Your task to perform on an android device: turn pop-ups off in chrome Image 0: 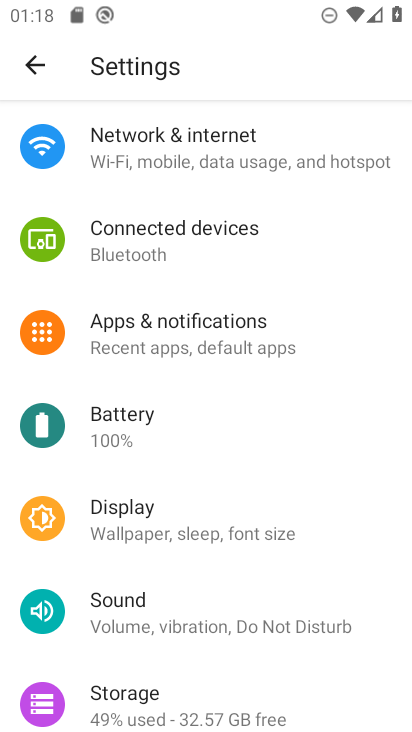
Step 0: press home button
Your task to perform on an android device: turn pop-ups off in chrome Image 1: 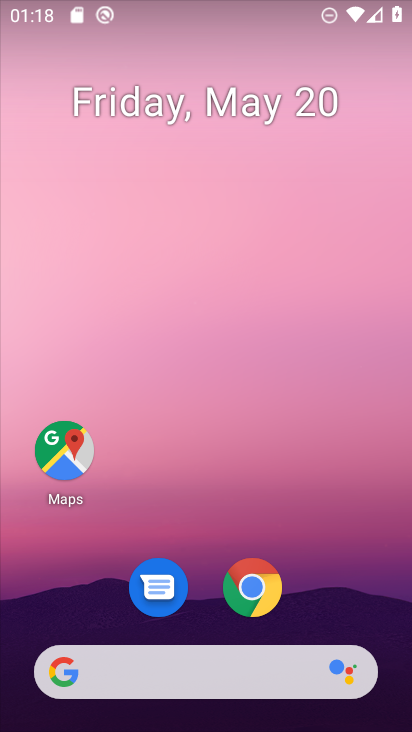
Step 1: drag from (379, 599) to (372, 203)
Your task to perform on an android device: turn pop-ups off in chrome Image 2: 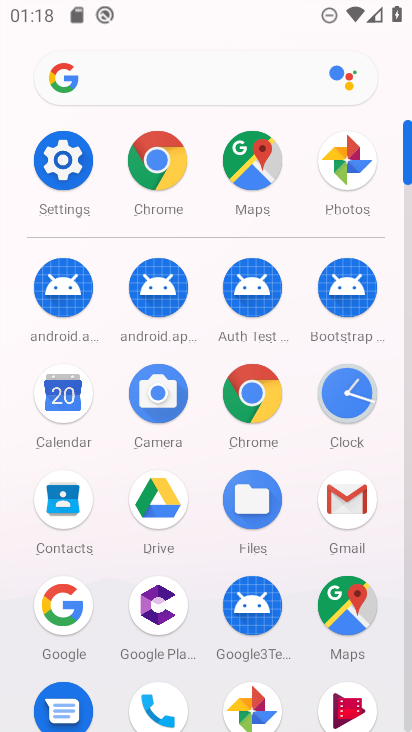
Step 2: click (262, 419)
Your task to perform on an android device: turn pop-ups off in chrome Image 3: 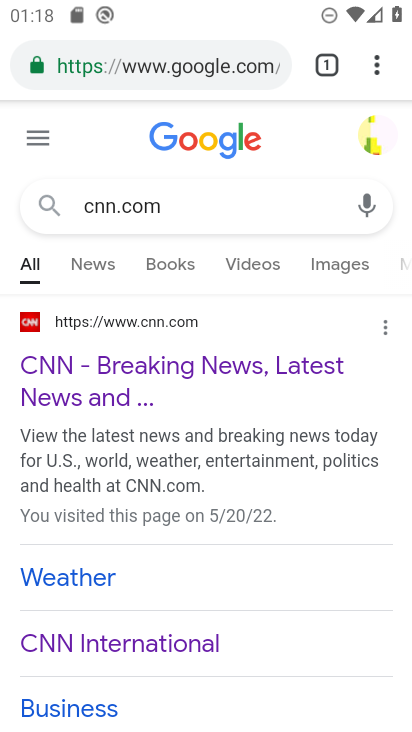
Step 3: click (376, 68)
Your task to perform on an android device: turn pop-ups off in chrome Image 4: 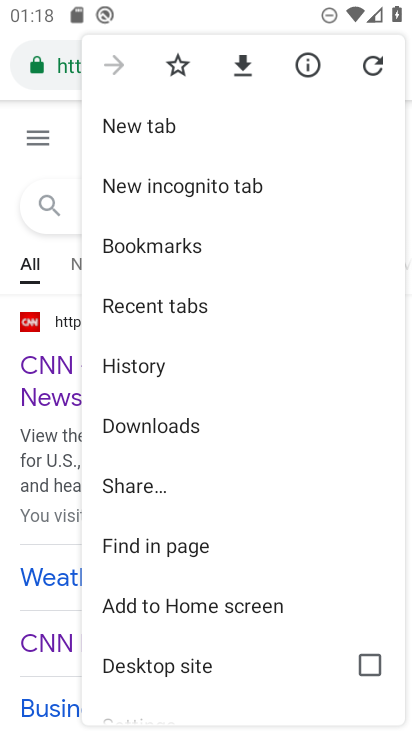
Step 4: drag from (319, 403) to (330, 270)
Your task to perform on an android device: turn pop-ups off in chrome Image 5: 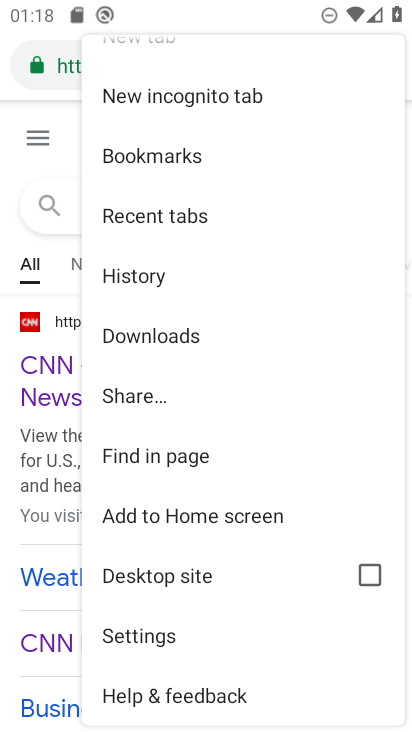
Step 5: drag from (306, 492) to (331, 316)
Your task to perform on an android device: turn pop-ups off in chrome Image 6: 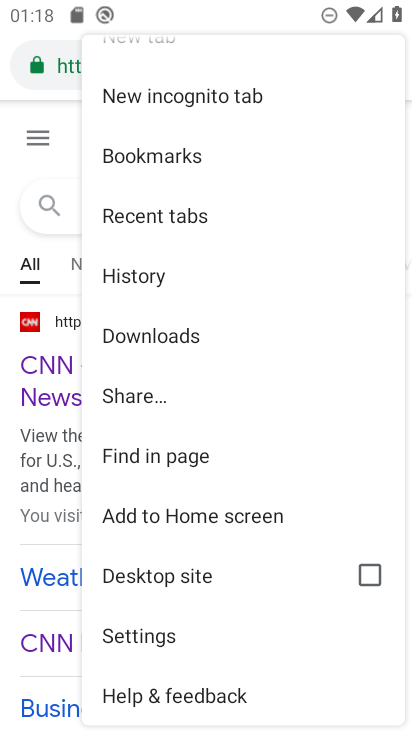
Step 6: click (172, 630)
Your task to perform on an android device: turn pop-ups off in chrome Image 7: 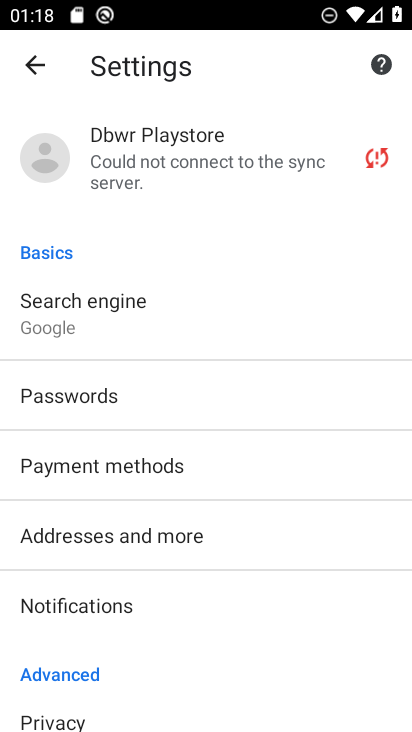
Step 7: drag from (297, 614) to (293, 475)
Your task to perform on an android device: turn pop-ups off in chrome Image 8: 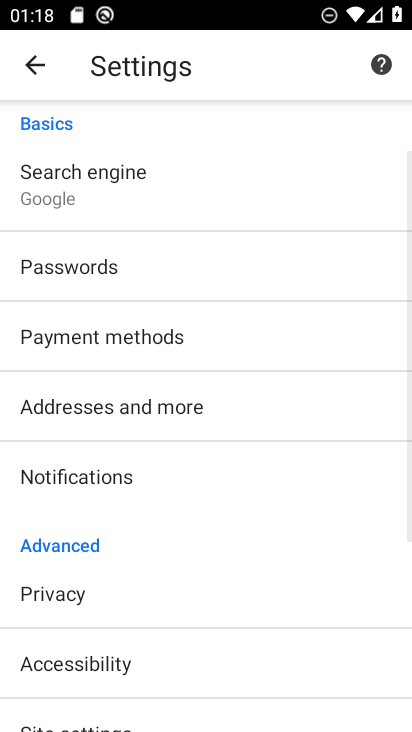
Step 8: drag from (299, 627) to (302, 509)
Your task to perform on an android device: turn pop-ups off in chrome Image 9: 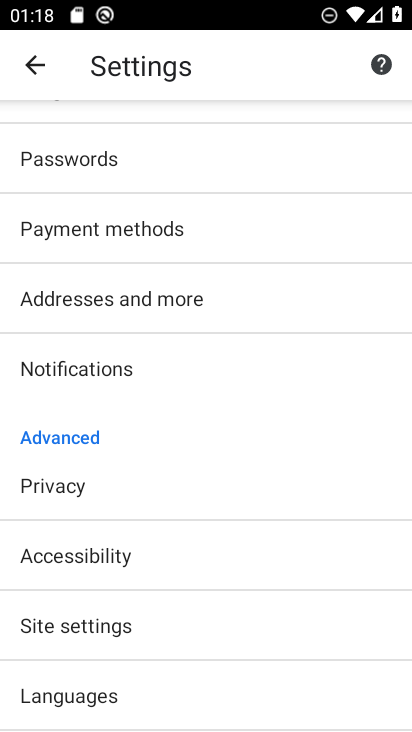
Step 9: drag from (271, 611) to (275, 499)
Your task to perform on an android device: turn pop-ups off in chrome Image 10: 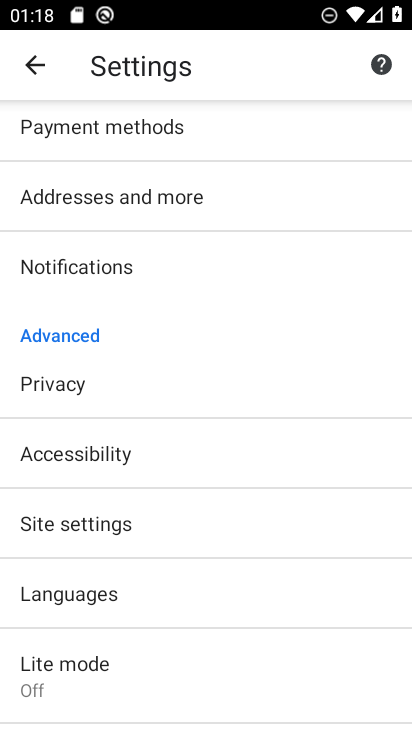
Step 10: drag from (282, 622) to (281, 503)
Your task to perform on an android device: turn pop-ups off in chrome Image 11: 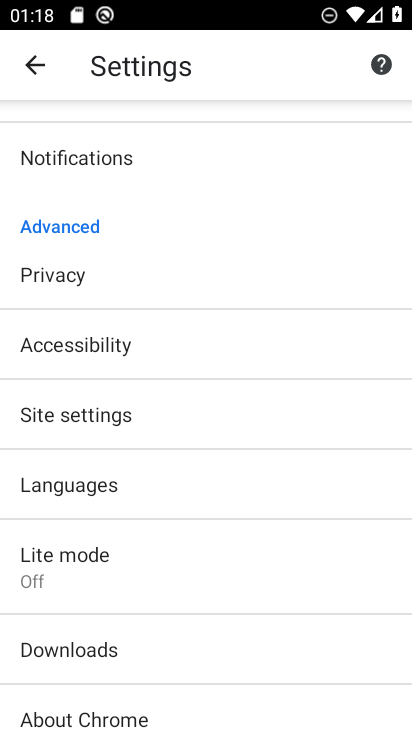
Step 11: drag from (264, 644) to (276, 560)
Your task to perform on an android device: turn pop-ups off in chrome Image 12: 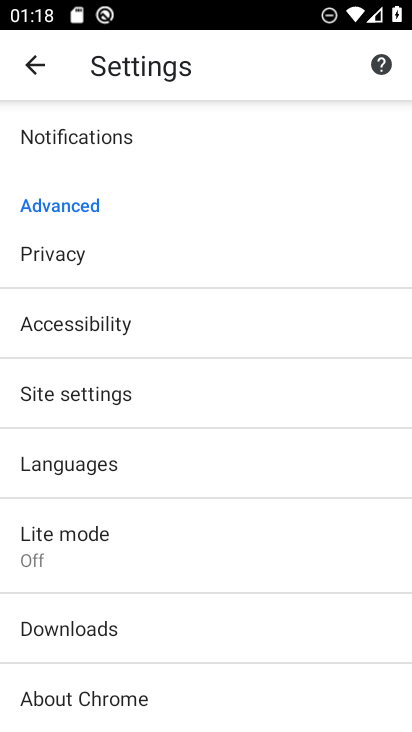
Step 12: click (193, 407)
Your task to perform on an android device: turn pop-ups off in chrome Image 13: 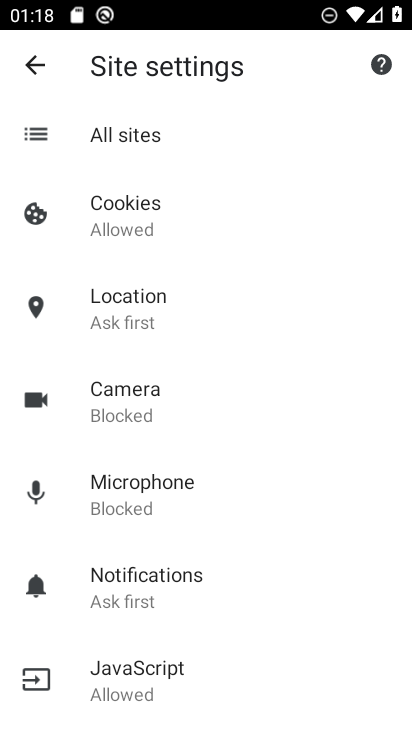
Step 13: drag from (289, 547) to (294, 465)
Your task to perform on an android device: turn pop-ups off in chrome Image 14: 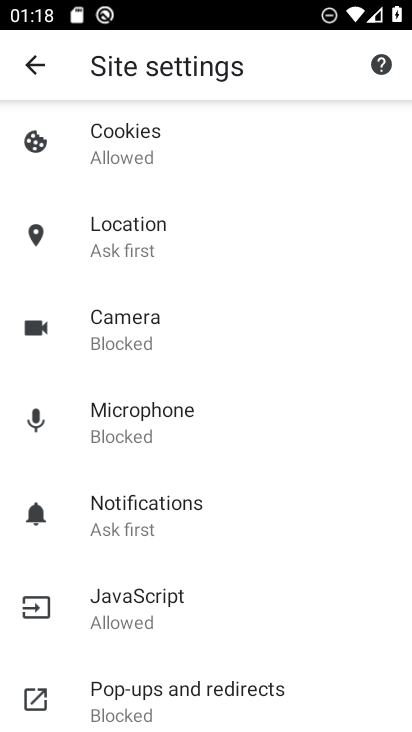
Step 14: drag from (289, 614) to (298, 445)
Your task to perform on an android device: turn pop-ups off in chrome Image 15: 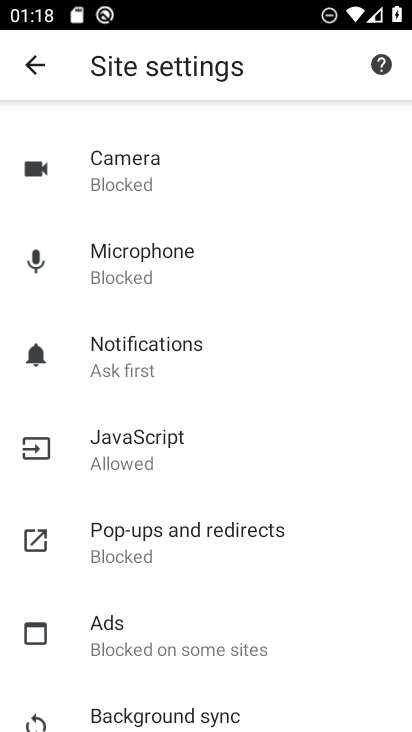
Step 15: drag from (326, 628) to (329, 520)
Your task to perform on an android device: turn pop-ups off in chrome Image 16: 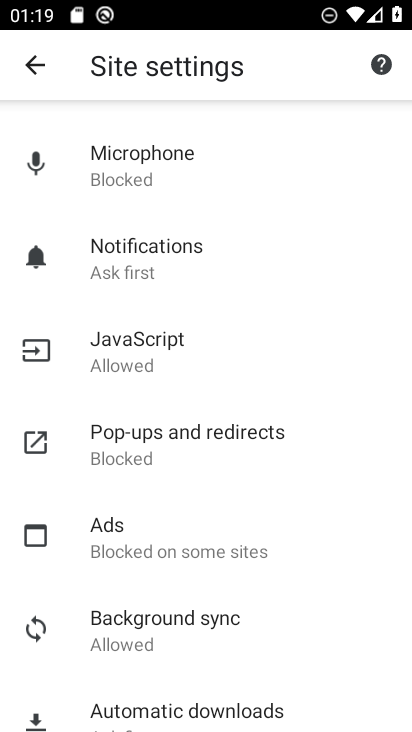
Step 16: click (212, 456)
Your task to perform on an android device: turn pop-ups off in chrome Image 17: 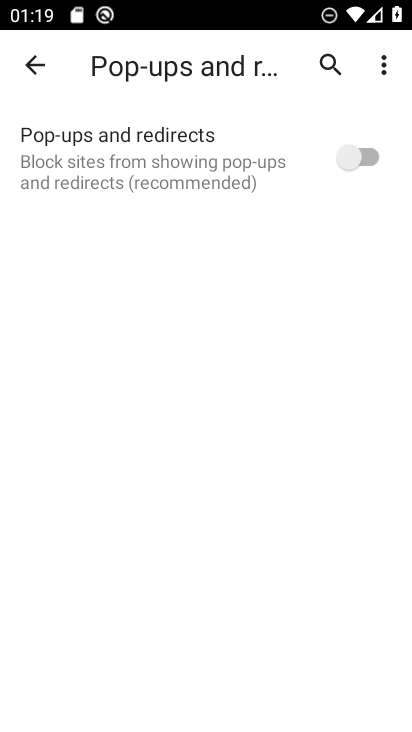
Step 17: task complete